Your task to perform on an android device: turn smart compose on in the gmail app Image 0: 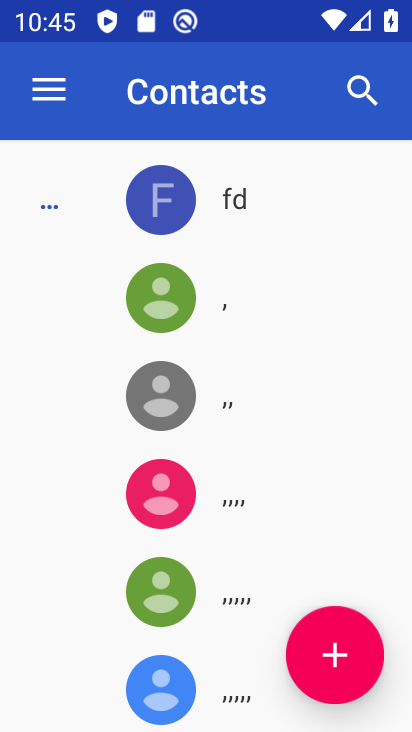
Step 0: press home button
Your task to perform on an android device: turn smart compose on in the gmail app Image 1: 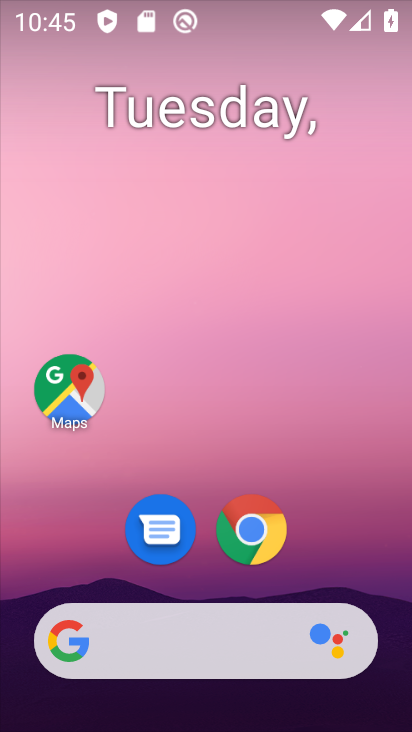
Step 1: drag from (66, 578) to (172, 46)
Your task to perform on an android device: turn smart compose on in the gmail app Image 2: 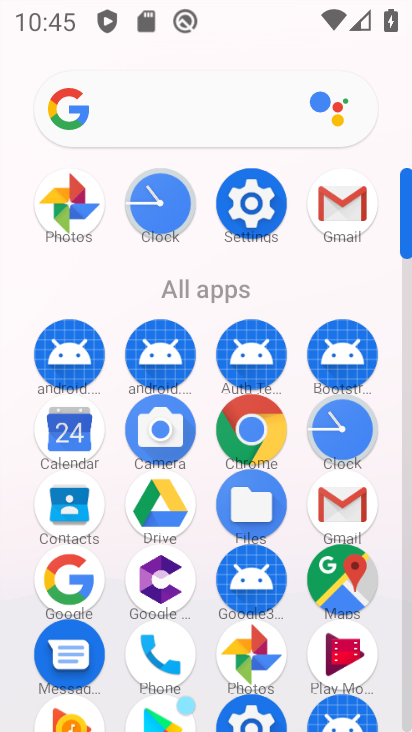
Step 2: drag from (142, 667) to (184, 333)
Your task to perform on an android device: turn smart compose on in the gmail app Image 3: 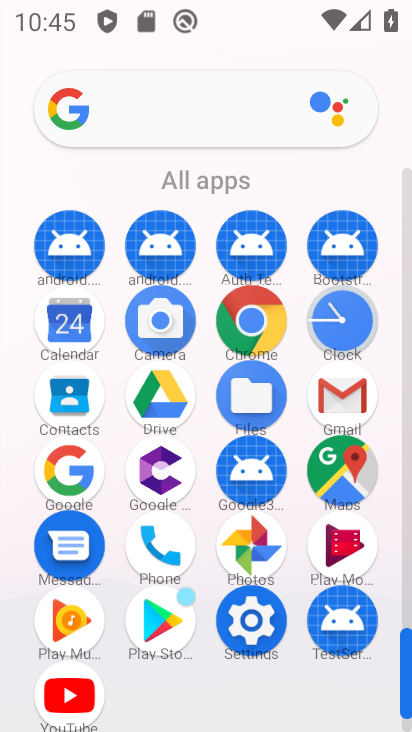
Step 3: click (347, 393)
Your task to perform on an android device: turn smart compose on in the gmail app Image 4: 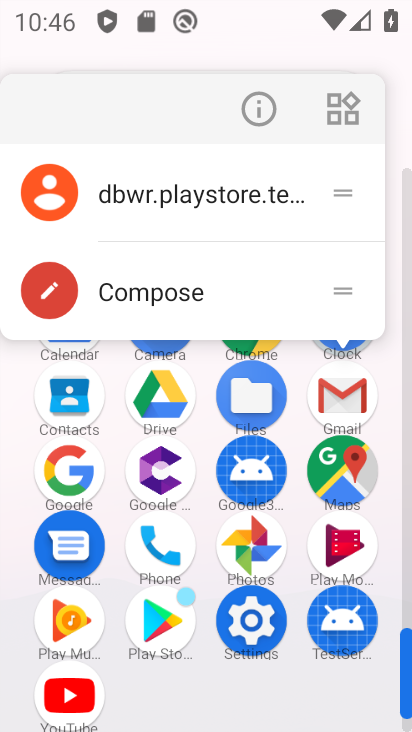
Step 4: click (354, 403)
Your task to perform on an android device: turn smart compose on in the gmail app Image 5: 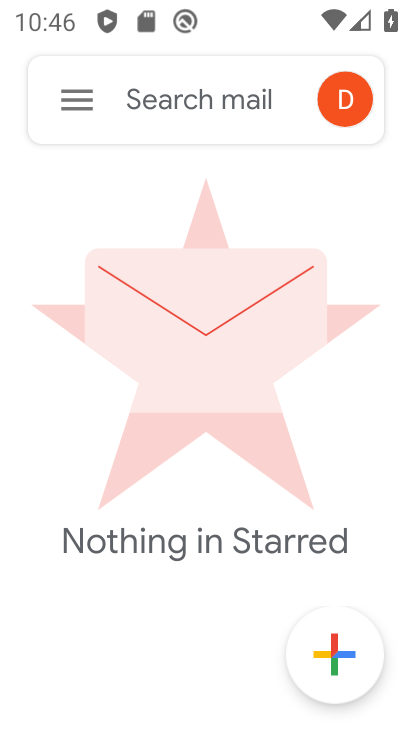
Step 5: click (92, 82)
Your task to perform on an android device: turn smart compose on in the gmail app Image 6: 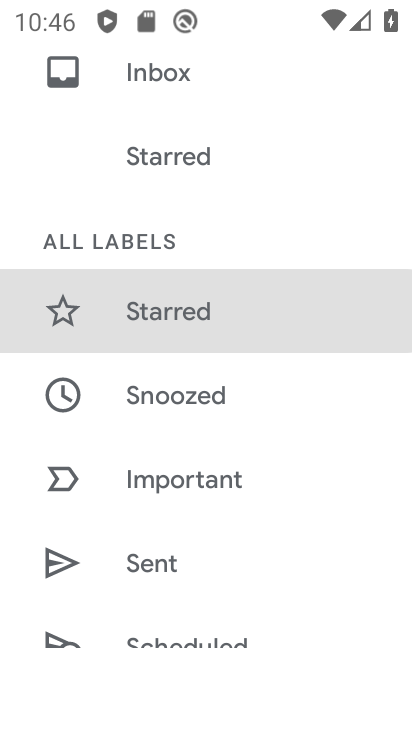
Step 6: drag from (127, 570) to (255, 109)
Your task to perform on an android device: turn smart compose on in the gmail app Image 7: 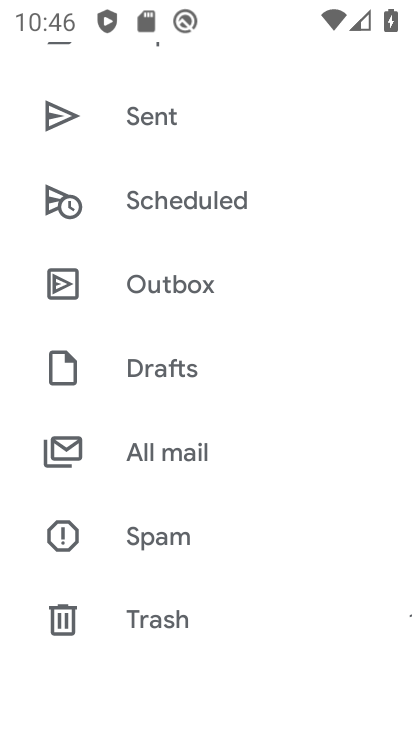
Step 7: drag from (170, 629) to (255, 139)
Your task to perform on an android device: turn smart compose on in the gmail app Image 8: 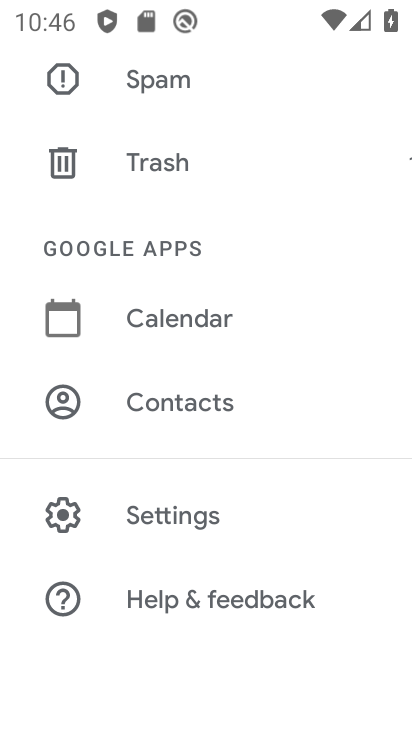
Step 8: click (188, 515)
Your task to perform on an android device: turn smart compose on in the gmail app Image 9: 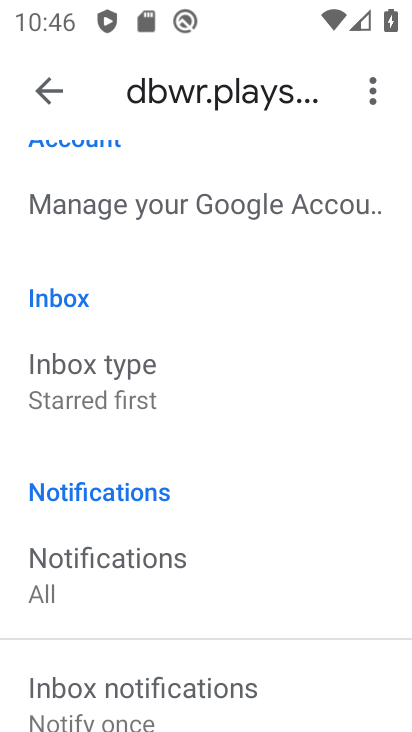
Step 9: task complete